Your task to perform on an android device: Open Chrome and go to settings Image 0: 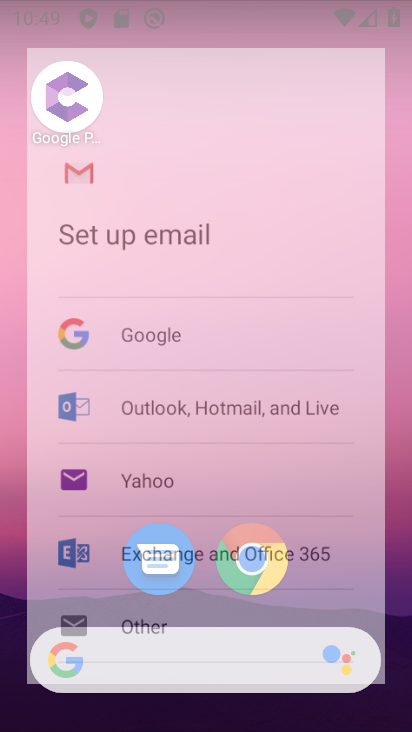
Step 0: drag from (352, 570) to (382, 92)
Your task to perform on an android device: Open Chrome and go to settings Image 1: 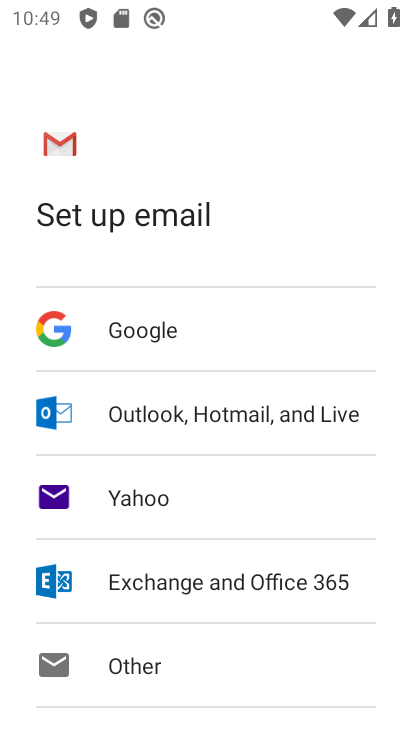
Step 1: press home button
Your task to perform on an android device: Open Chrome and go to settings Image 2: 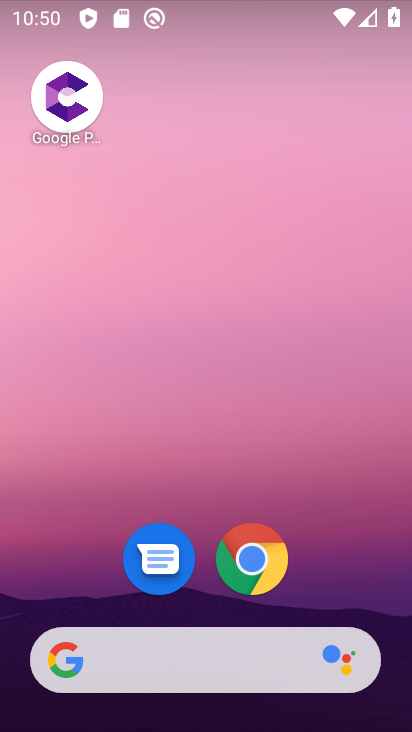
Step 2: click (267, 559)
Your task to perform on an android device: Open Chrome and go to settings Image 3: 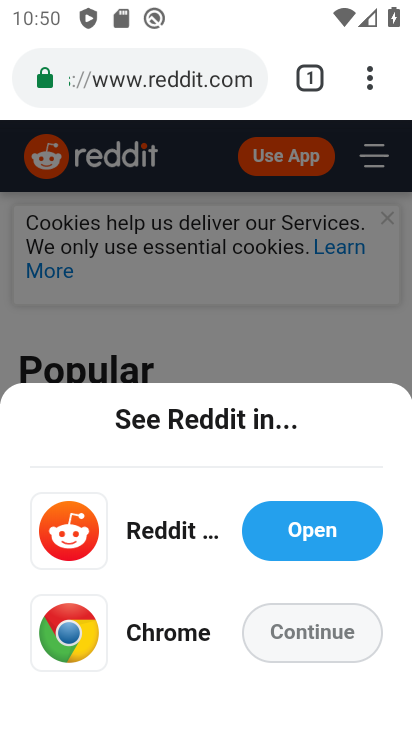
Step 3: click (369, 75)
Your task to perform on an android device: Open Chrome and go to settings Image 4: 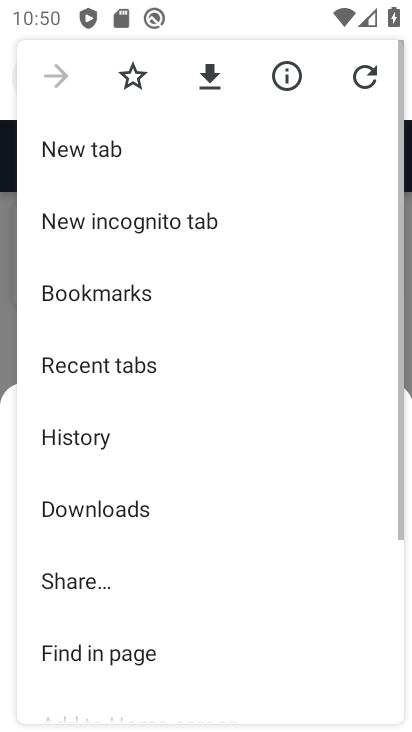
Step 4: drag from (277, 408) to (301, 191)
Your task to perform on an android device: Open Chrome and go to settings Image 5: 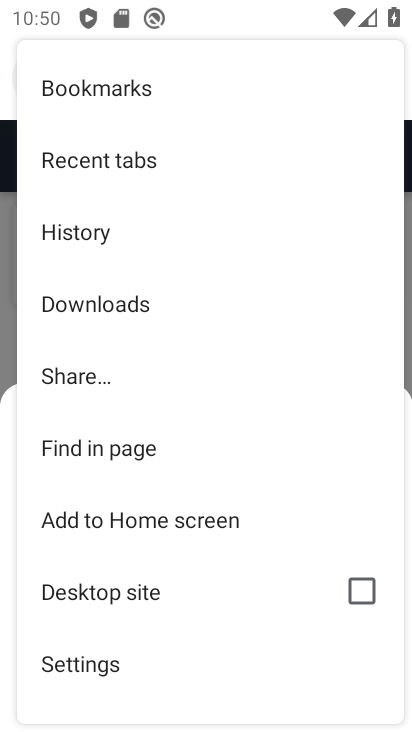
Step 5: click (102, 653)
Your task to perform on an android device: Open Chrome and go to settings Image 6: 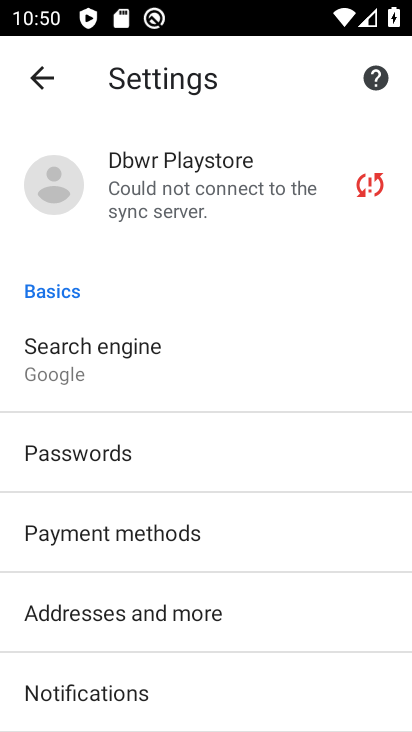
Step 6: task complete